Your task to perform on an android device: Open Google Image 0: 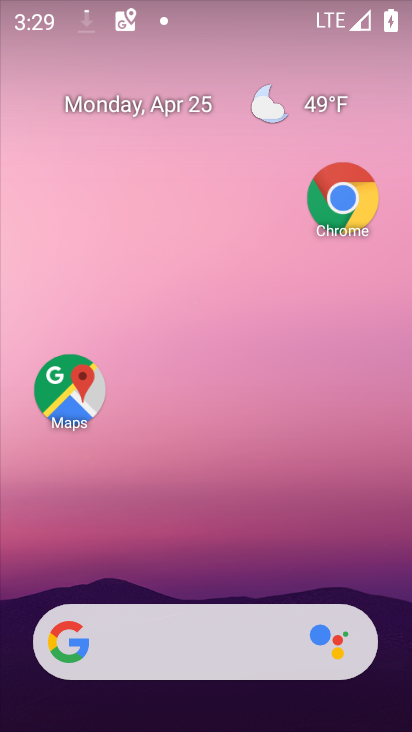
Step 0: click (409, 483)
Your task to perform on an android device: Open Google Image 1: 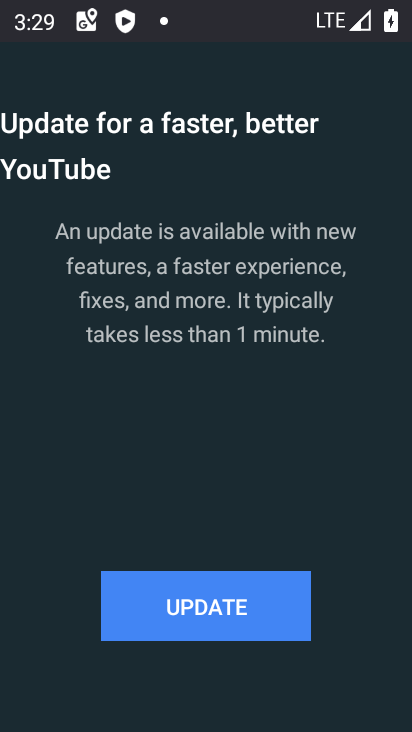
Step 1: press home button
Your task to perform on an android device: Open Google Image 2: 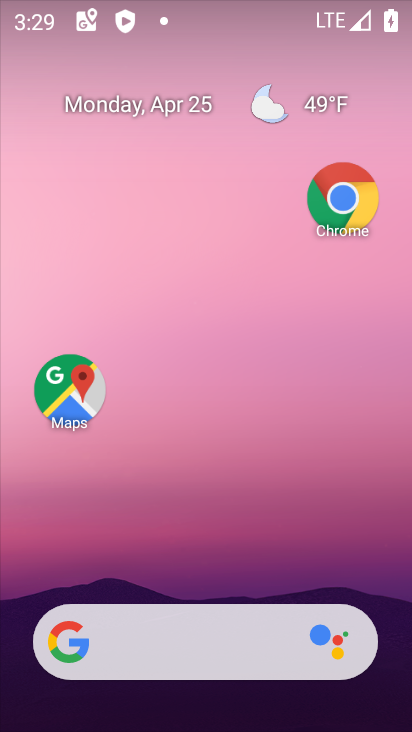
Step 2: drag from (191, 630) to (352, 79)
Your task to perform on an android device: Open Google Image 3: 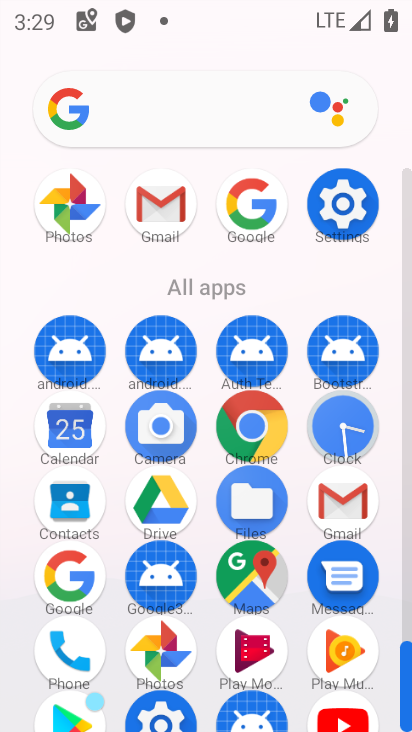
Step 3: click (64, 587)
Your task to perform on an android device: Open Google Image 4: 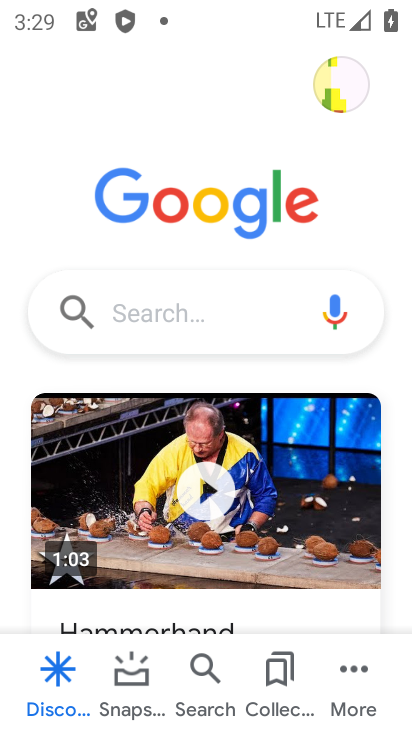
Step 4: task complete